Your task to perform on an android device: Search for Italian restaurants on Maps Image 0: 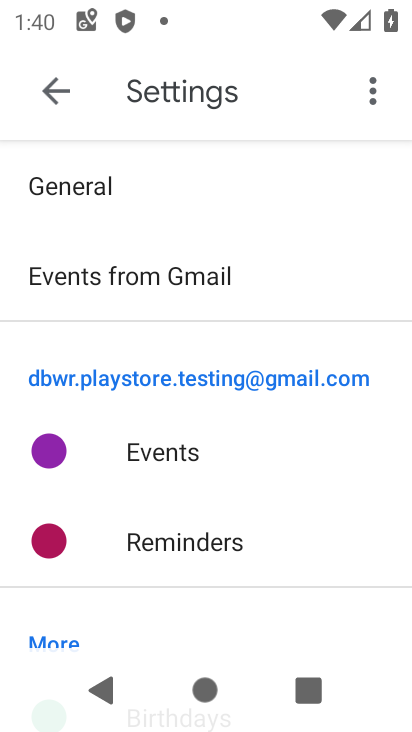
Step 0: press home button
Your task to perform on an android device: Search for Italian restaurants on Maps Image 1: 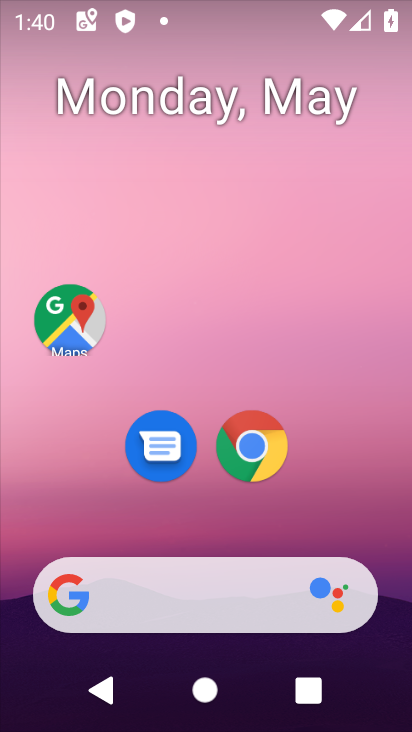
Step 1: click (49, 316)
Your task to perform on an android device: Search for Italian restaurants on Maps Image 2: 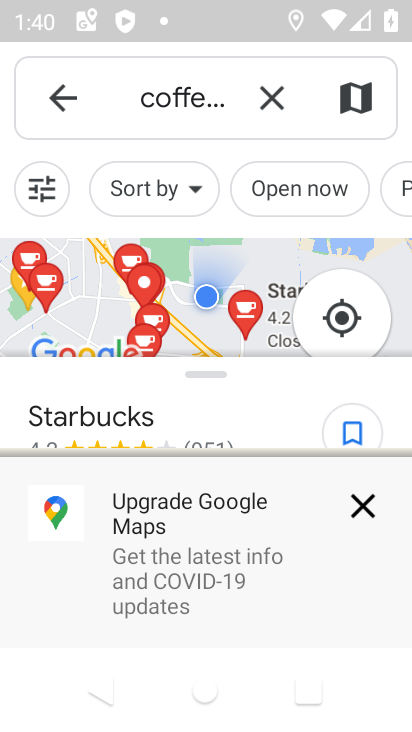
Step 2: click (272, 91)
Your task to perform on an android device: Search for Italian restaurants on Maps Image 3: 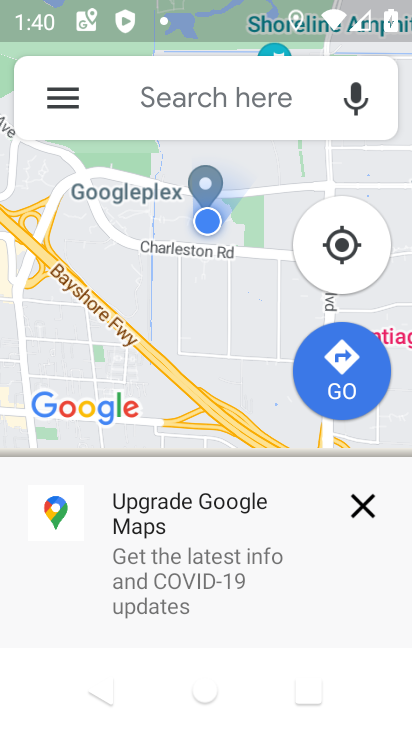
Step 3: click (215, 95)
Your task to perform on an android device: Search for Italian restaurants on Maps Image 4: 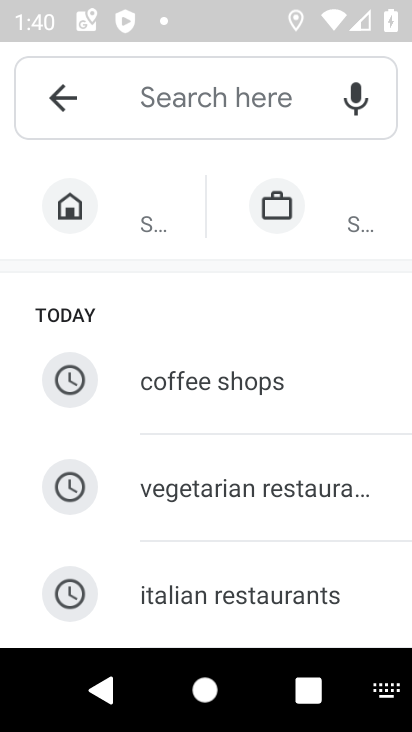
Step 4: click (201, 592)
Your task to perform on an android device: Search for Italian restaurants on Maps Image 5: 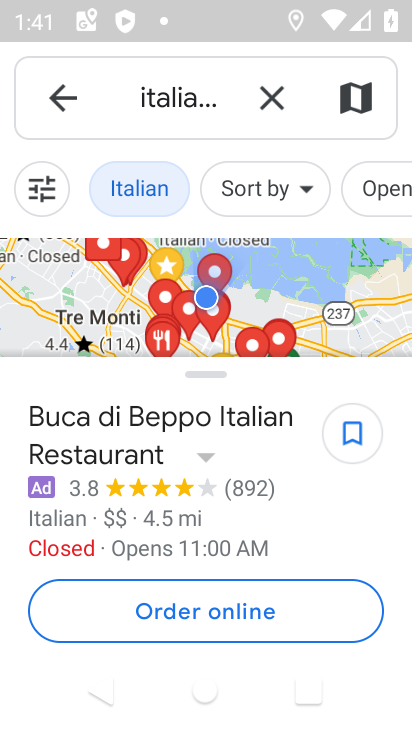
Step 5: task complete